Your task to perform on an android device: show emergency info Image 0: 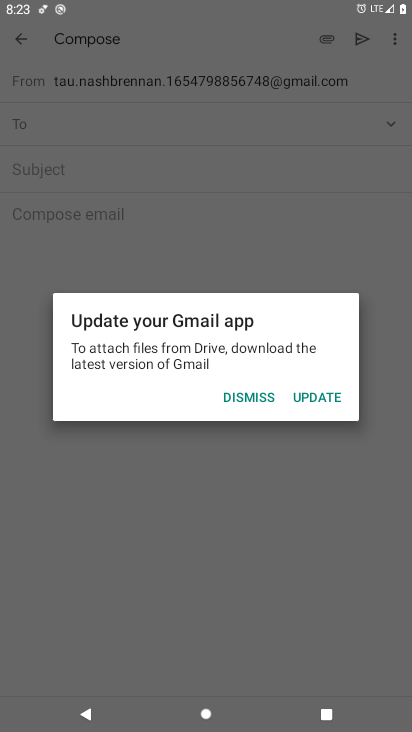
Step 0: press home button
Your task to perform on an android device: show emergency info Image 1: 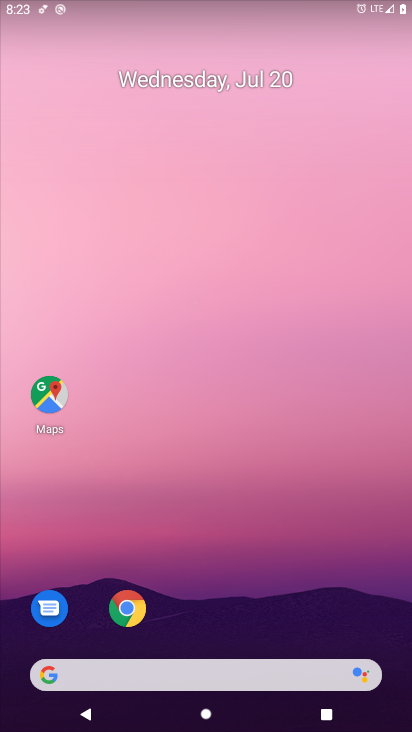
Step 1: drag from (205, 594) to (283, 40)
Your task to perform on an android device: show emergency info Image 2: 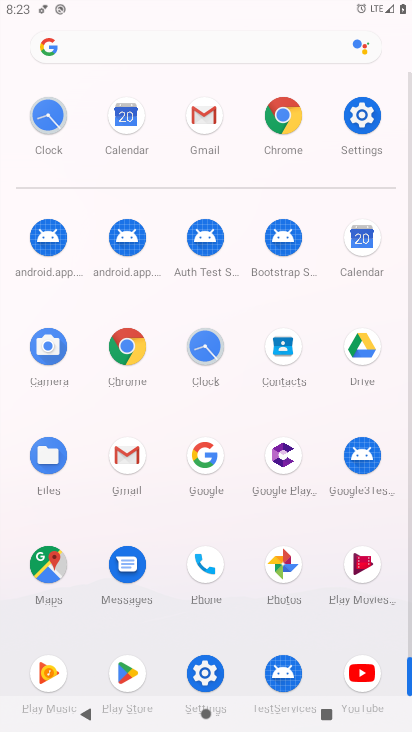
Step 2: click (358, 142)
Your task to perform on an android device: show emergency info Image 3: 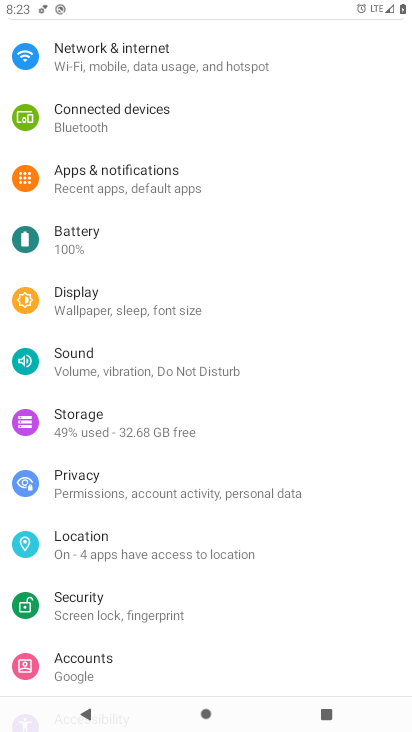
Step 3: drag from (162, 575) to (225, 223)
Your task to perform on an android device: show emergency info Image 4: 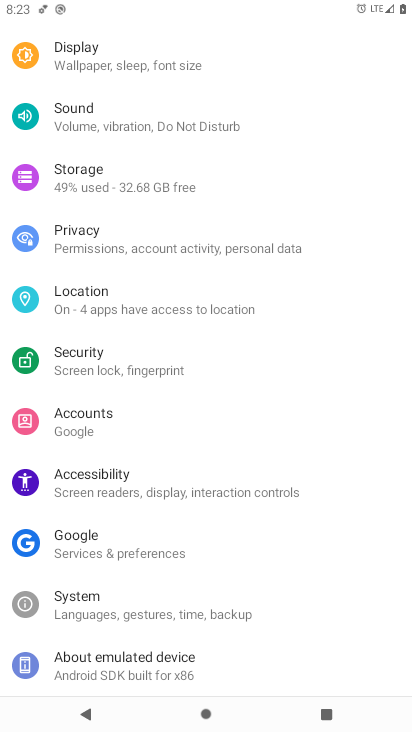
Step 4: click (146, 665)
Your task to perform on an android device: show emergency info Image 5: 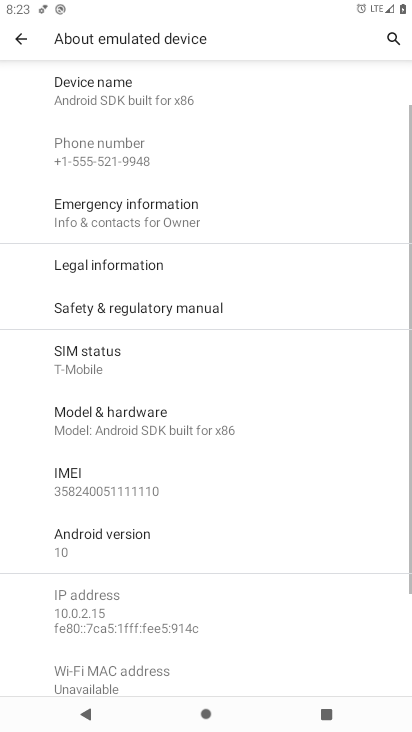
Step 5: click (128, 204)
Your task to perform on an android device: show emergency info Image 6: 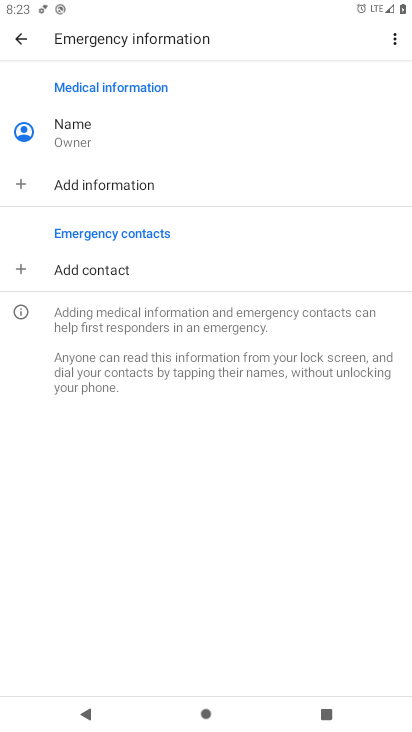
Step 6: task complete